Your task to perform on an android device: turn on javascript in the chrome app Image 0: 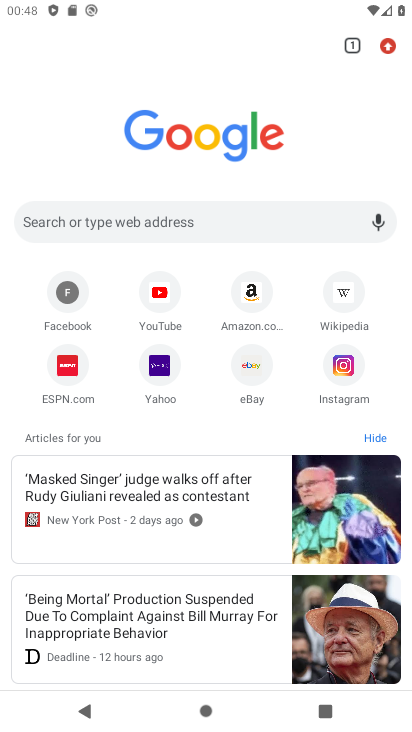
Step 0: click (392, 47)
Your task to perform on an android device: turn on javascript in the chrome app Image 1: 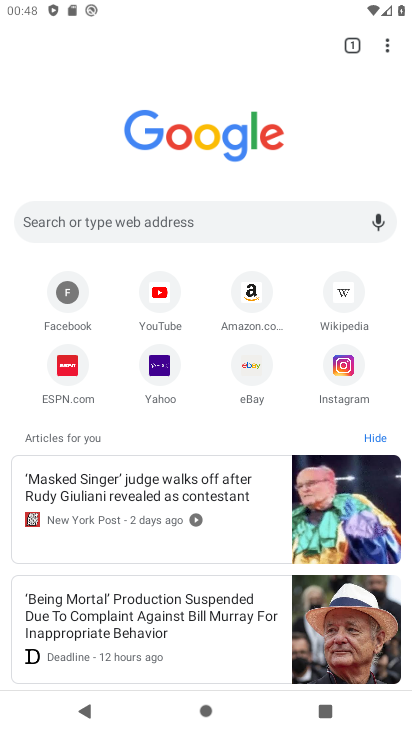
Step 1: click (387, 44)
Your task to perform on an android device: turn on javascript in the chrome app Image 2: 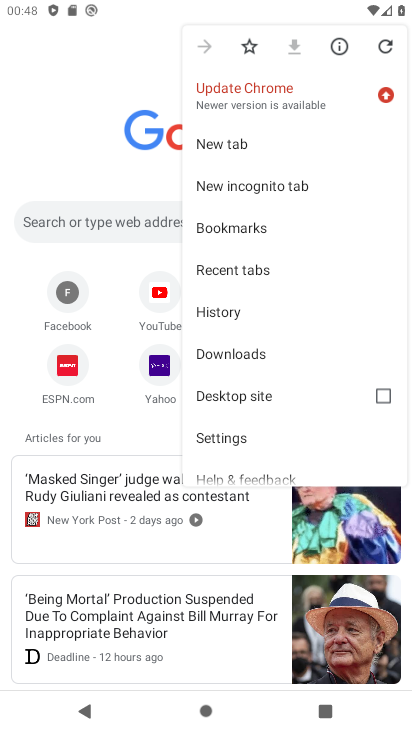
Step 2: click (250, 434)
Your task to perform on an android device: turn on javascript in the chrome app Image 3: 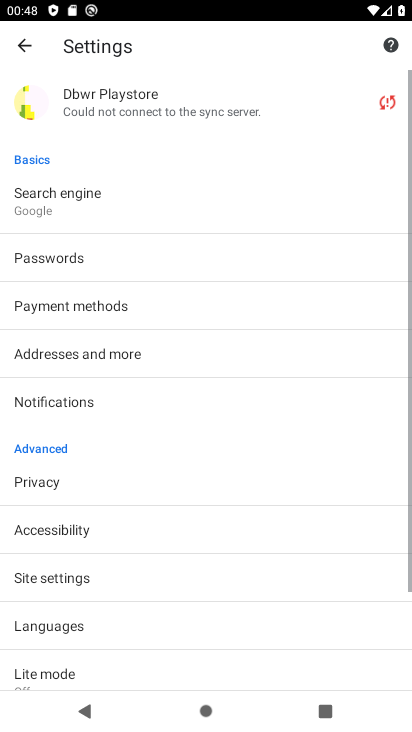
Step 3: drag from (168, 635) to (208, 336)
Your task to perform on an android device: turn on javascript in the chrome app Image 4: 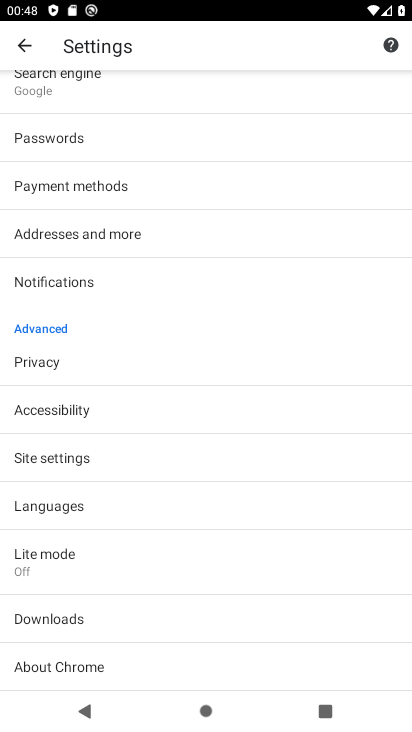
Step 4: click (87, 468)
Your task to perform on an android device: turn on javascript in the chrome app Image 5: 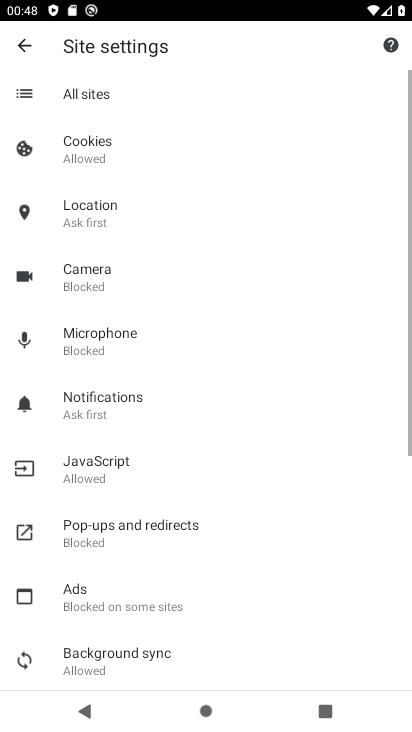
Step 5: click (90, 464)
Your task to perform on an android device: turn on javascript in the chrome app Image 6: 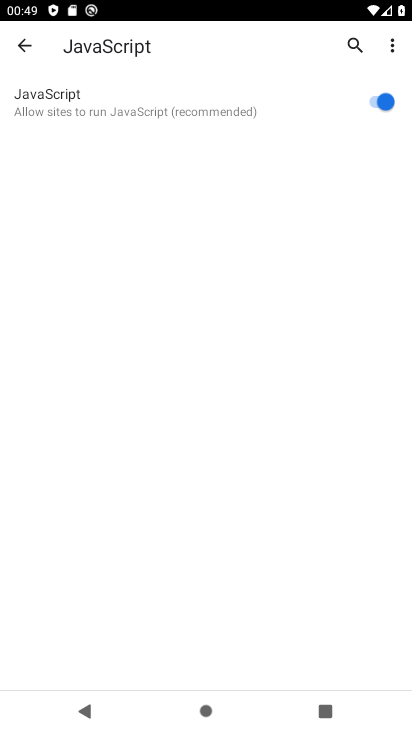
Step 6: task complete